Your task to perform on an android device: turn on improve location accuracy Image 0: 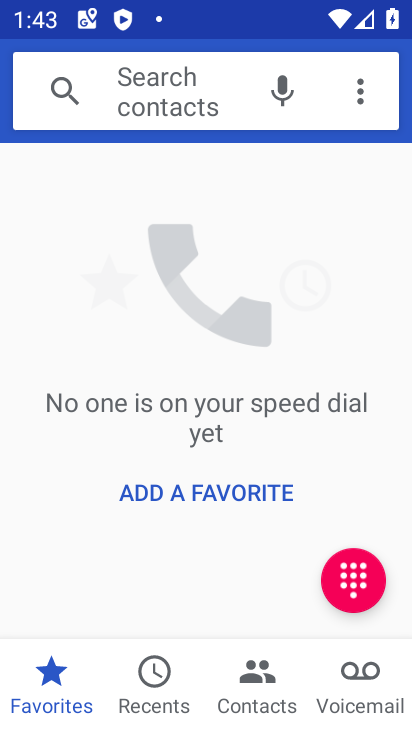
Step 0: press home button
Your task to perform on an android device: turn on improve location accuracy Image 1: 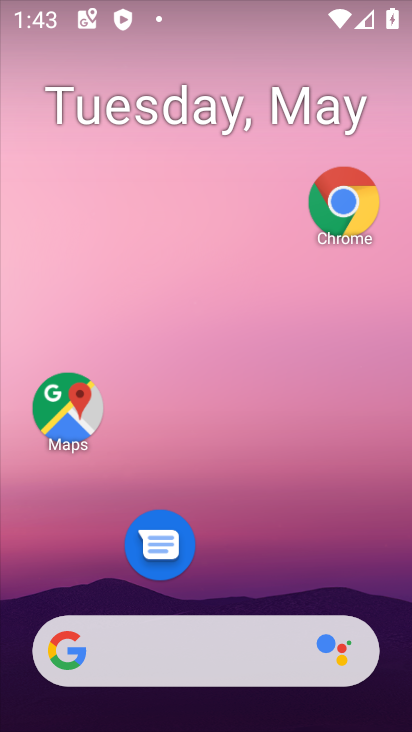
Step 1: drag from (212, 567) to (268, 121)
Your task to perform on an android device: turn on improve location accuracy Image 2: 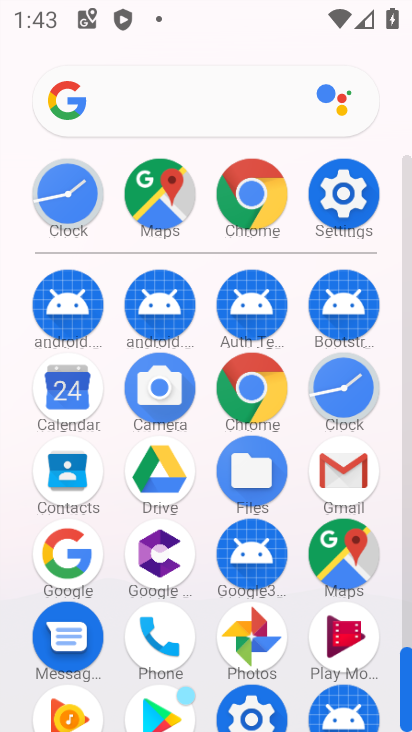
Step 2: click (351, 206)
Your task to perform on an android device: turn on improve location accuracy Image 3: 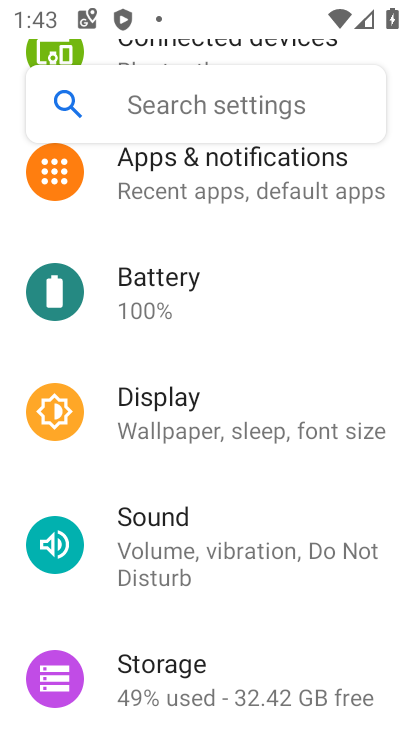
Step 3: drag from (198, 627) to (200, 229)
Your task to perform on an android device: turn on improve location accuracy Image 4: 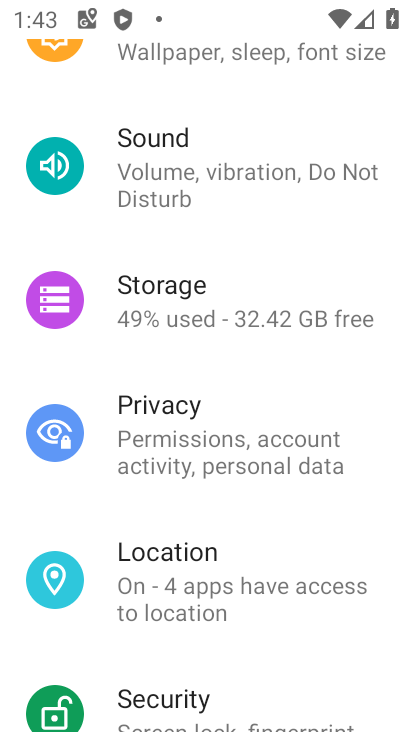
Step 4: click (207, 575)
Your task to perform on an android device: turn on improve location accuracy Image 5: 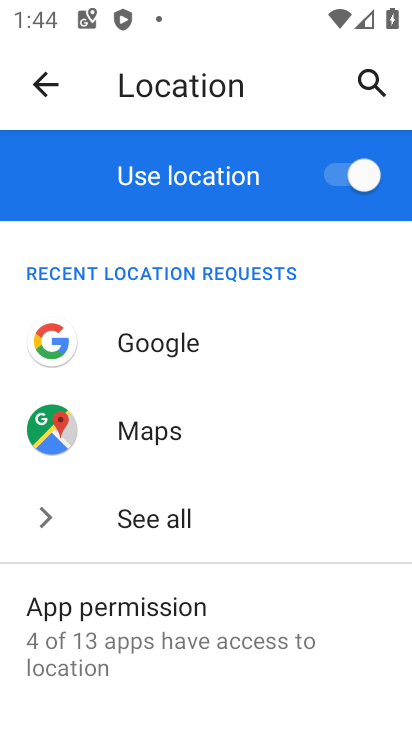
Step 5: drag from (65, 677) to (240, 168)
Your task to perform on an android device: turn on improve location accuracy Image 6: 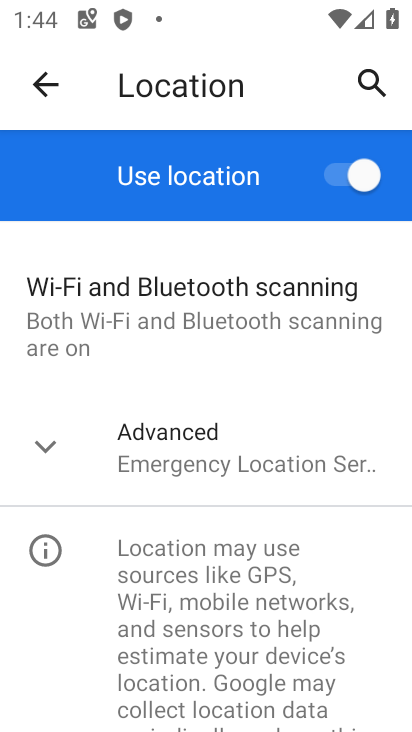
Step 6: click (206, 478)
Your task to perform on an android device: turn on improve location accuracy Image 7: 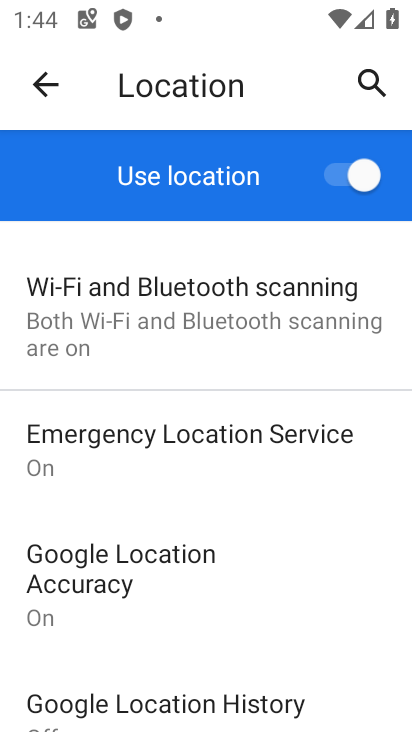
Step 7: click (143, 592)
Your task to perform on an android device: turn on improve location accuracy Image 8: 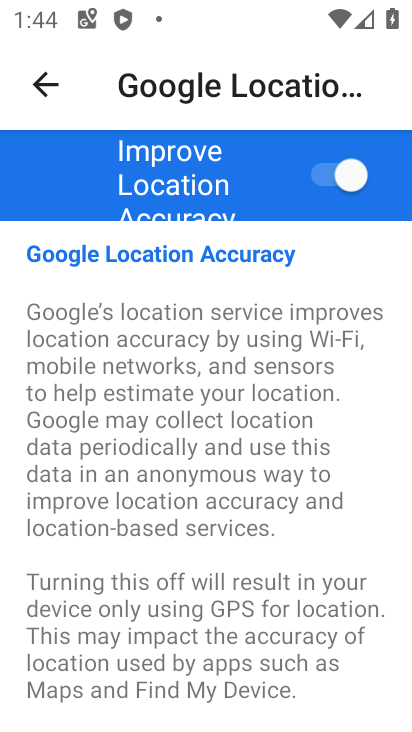
Step 8: task complete